Your task to perform on an android device: Clear the cart on amazon.com. Image 0: 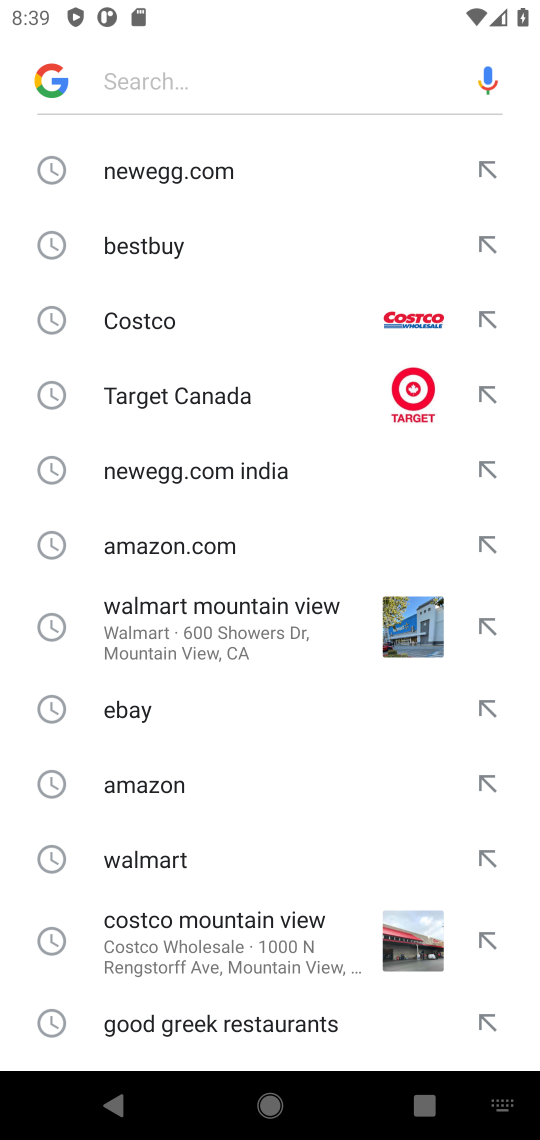
Step 0: click (265, 557)
Your task to perform on an android device: Clear the cart on amazon.com. Image 1: 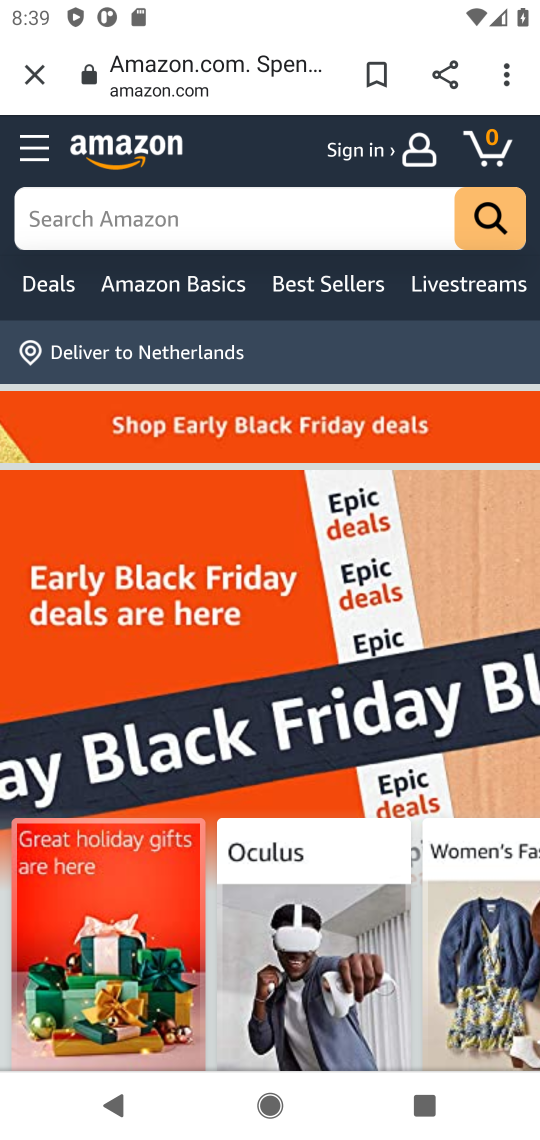
Step 1: click (181, 208)
Your task to perform on an android device: Clear the cart on amazon.com. Image 2: 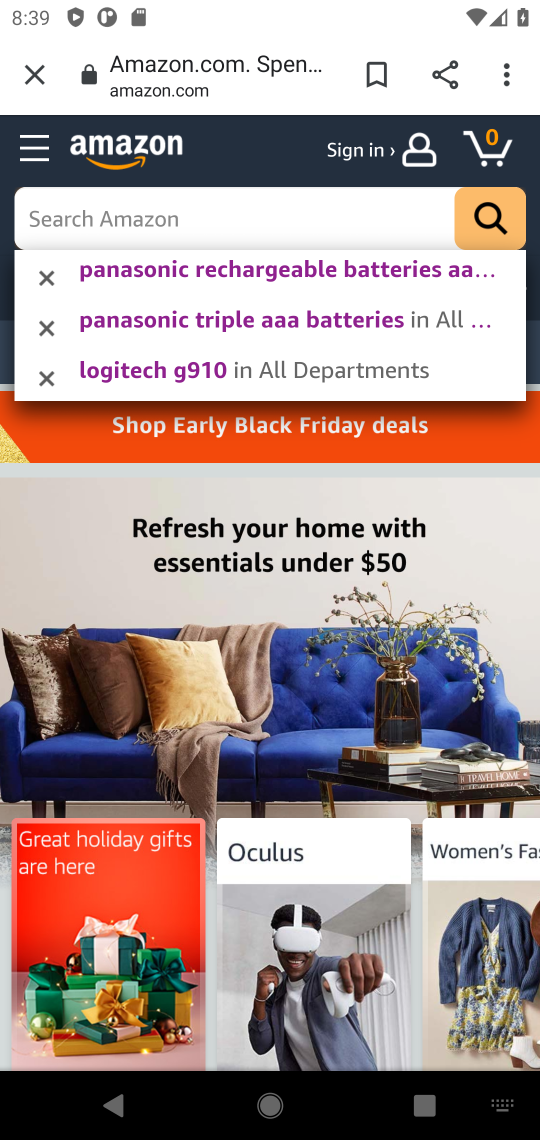
Step 2: click (498, 169)
Your task to perform on an android device: Clear the cart on amazon.com. Image 3: 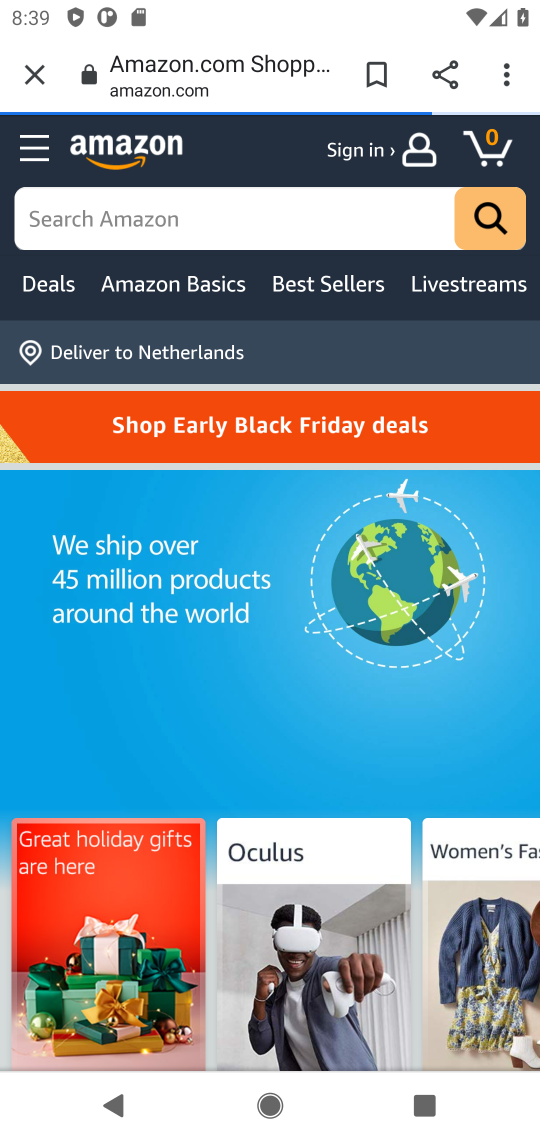
Step 3: task complete